Your task to perform on an android device: turn on improve location accuracy Image 0: 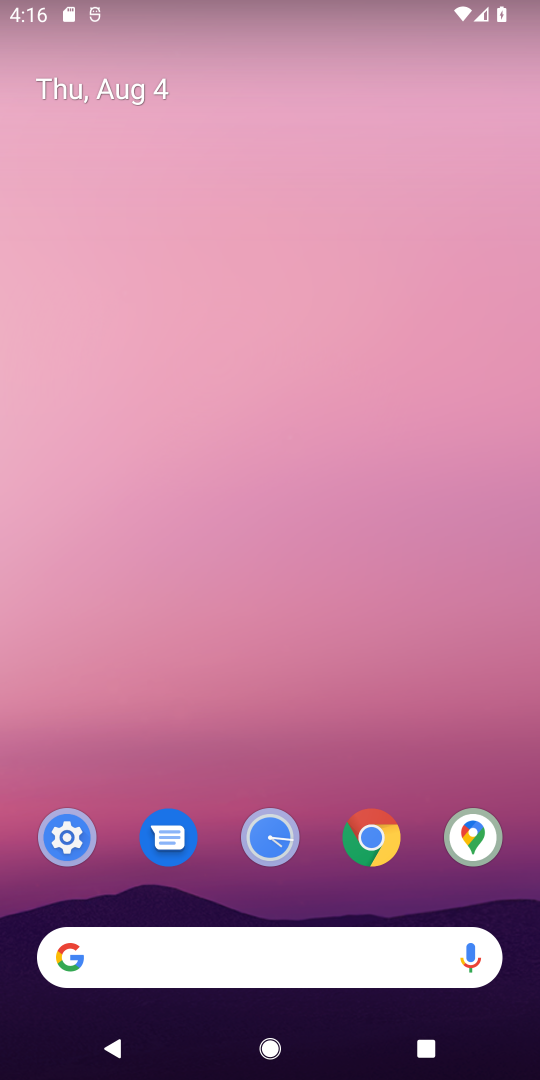
Step 0: drag from (309, 769) to (341, 65)
Your task to perform on an android device: turn on improve location accuracy Image 1: 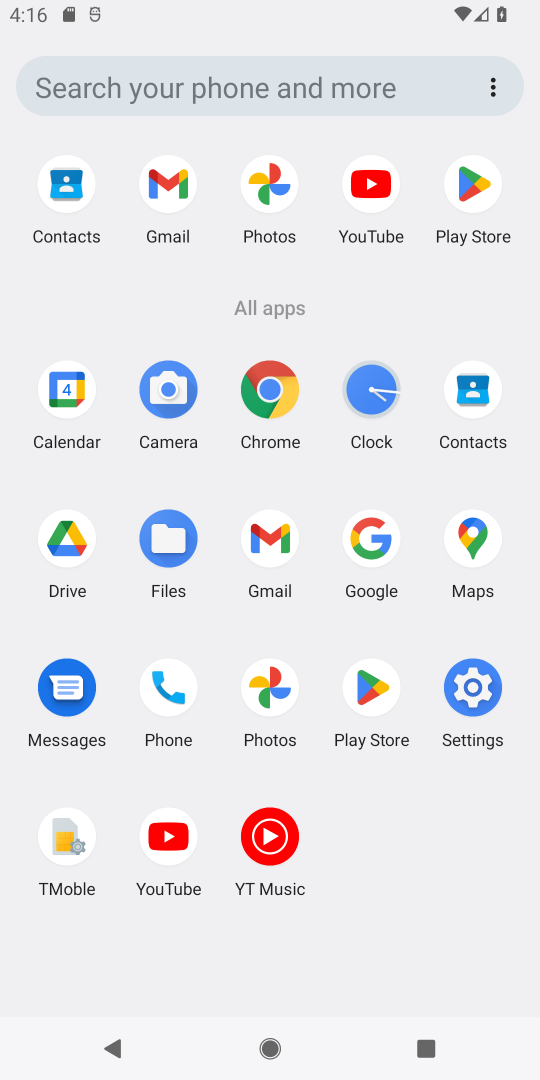
Step 1: click (464, 678)
Your task to perform on an android device: turn on improve location accuracy Image 2: 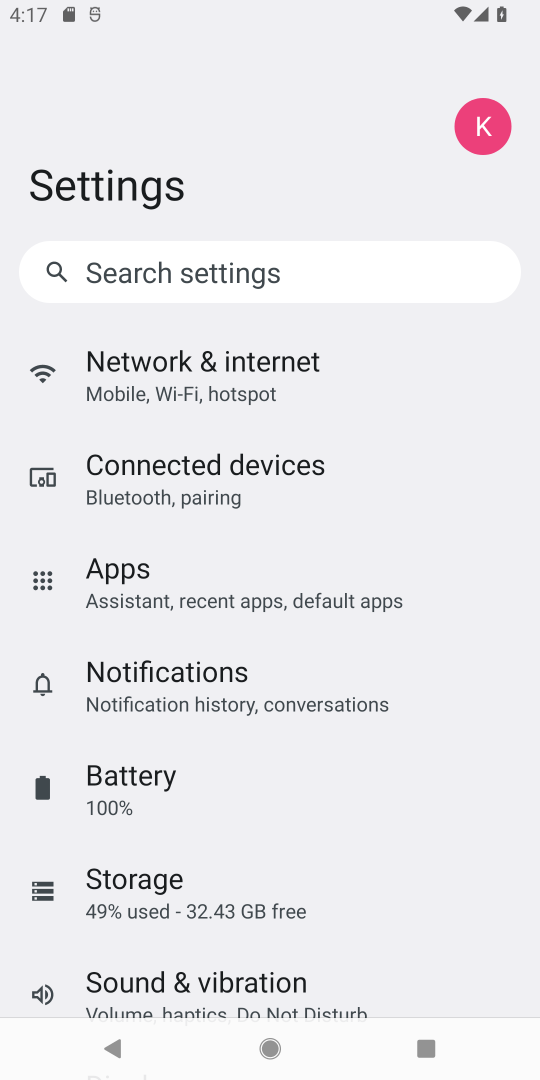
Step 2: drag from (214, 917) to (254, 129)
Your task to perform on an android device: turn on improve location accuracy Image 3: 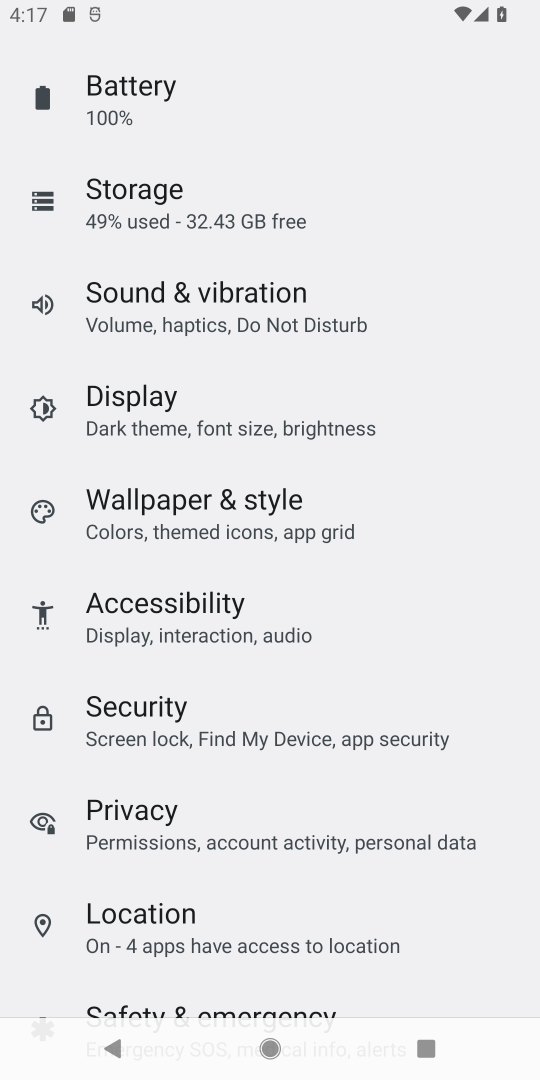
Step 3: click (206, 916)
Your task to perform on an android device: turn on improve location accuracy Image 4: 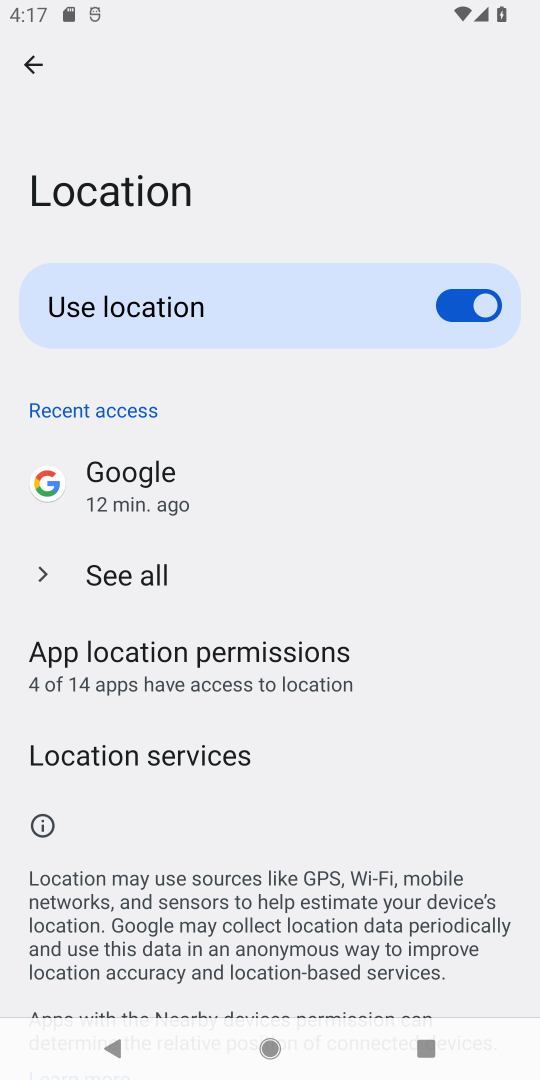
Step 4: click (171, 760)
Your task to perform on an android device: turn on improve location accuracy Image 5: 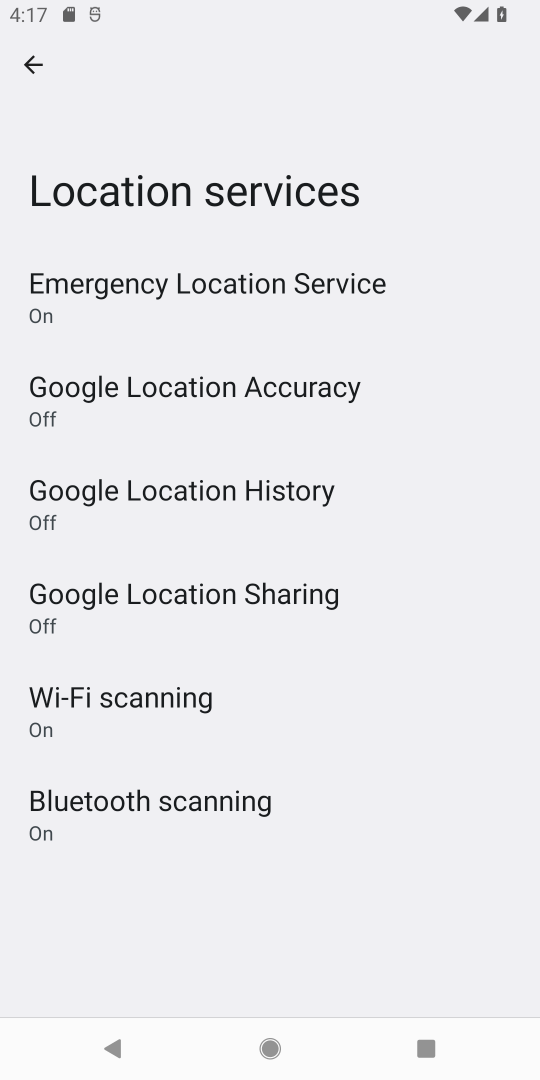
Step 5: click (239, 404)
Your task to perform on an android device: turn on improve location accuracy Image 6: 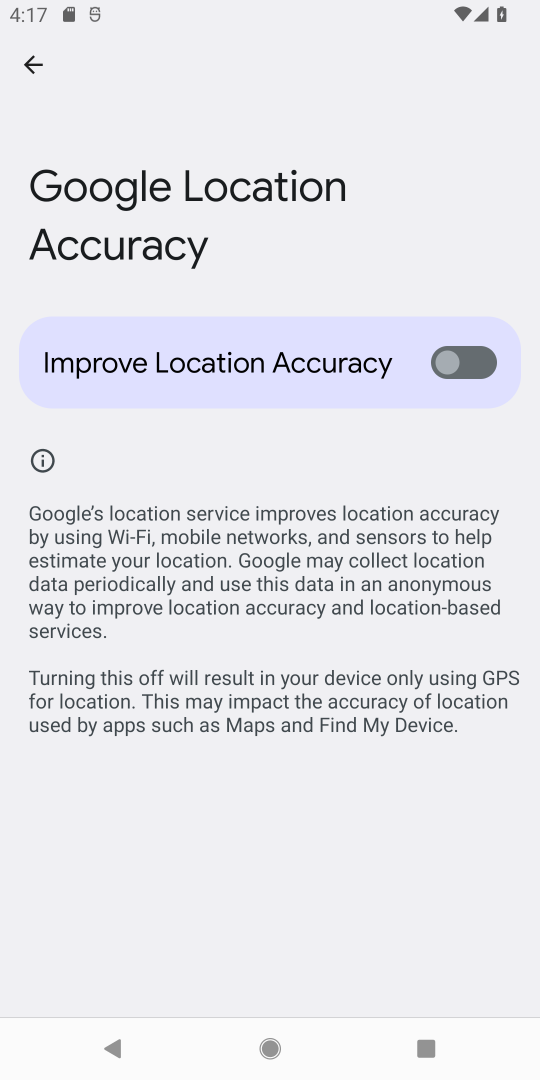
Step 6: click (465, 354)
Your task to perform on an android device: turn on improve location accuracy Image 7: 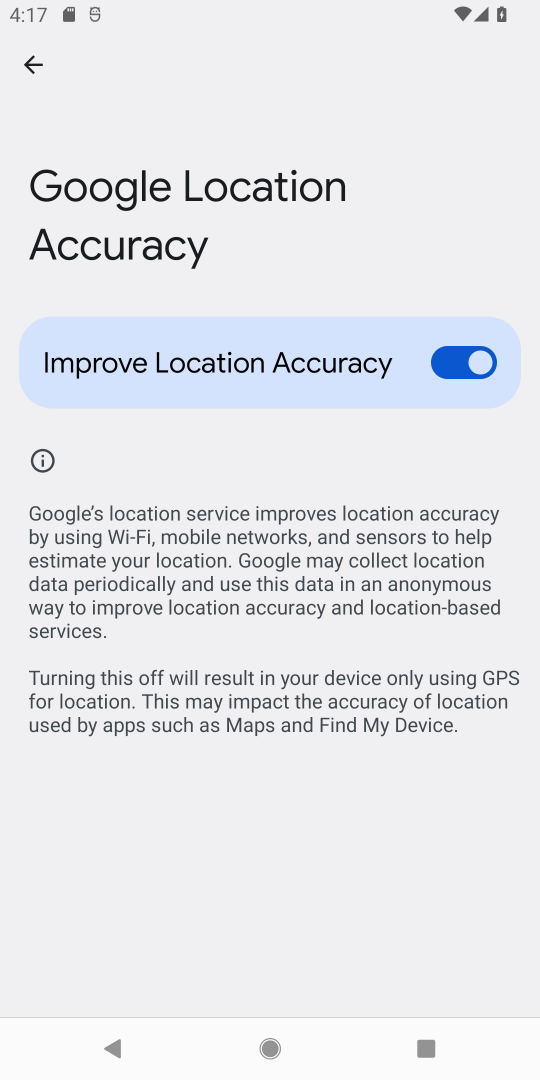
Step 7: task complete